Your task to perform on an android device: check android version Image 0: 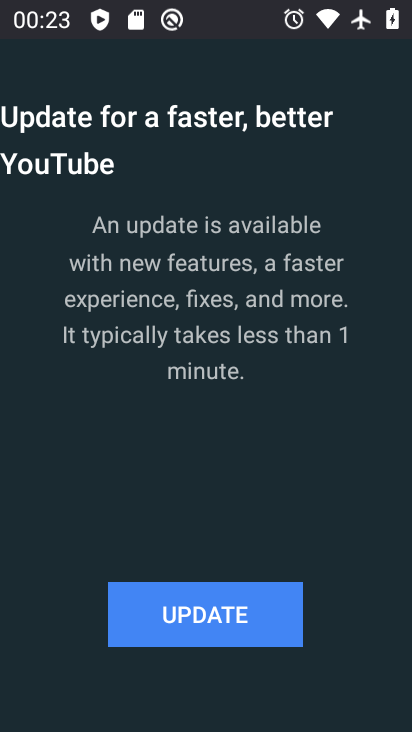
Step 0: press home button
Your task to perform on an android device: check android version Image 1: 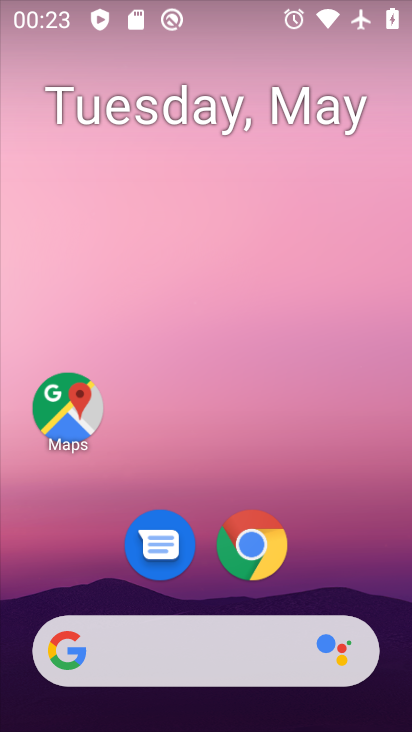
Step 1: drag from (310, 546) to (404, 8)
Your task to perform on an android device: check android version Image 2: 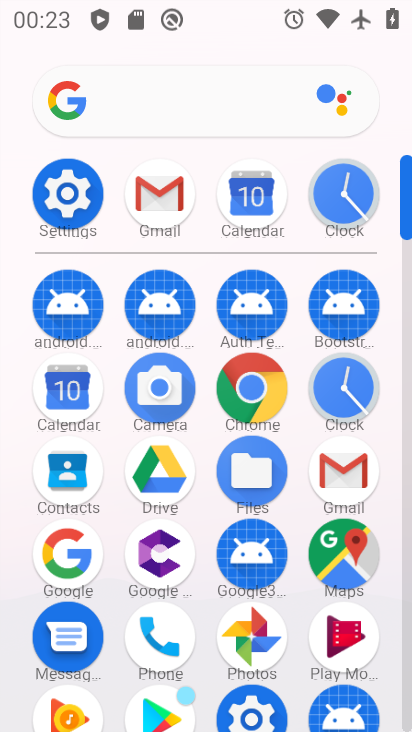
Step 2: click (92, 198)
Your task to perform on an android device: check android version Image 3: 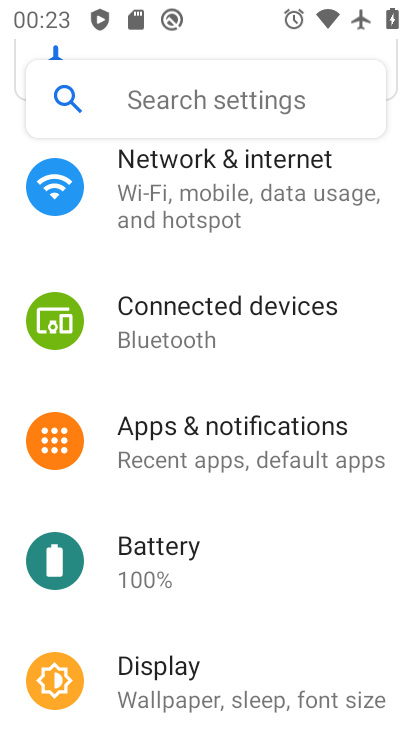
Step 3: drag from (171, 534) to (202, 354)
Your task to perform on an android device: check android version Image 4: 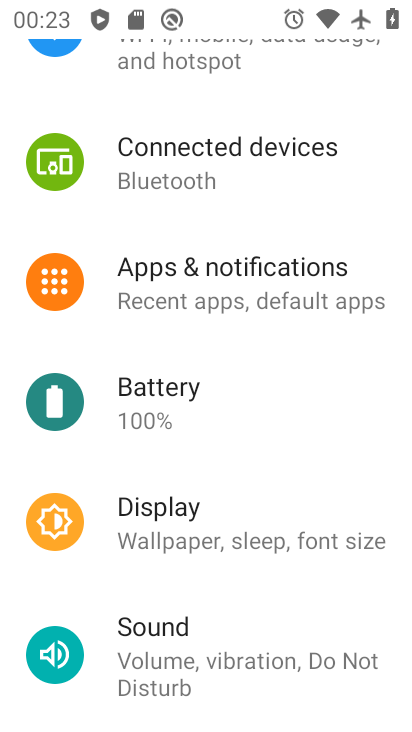
Step 4: drag from (120, 549) to (167, 306)
Your task to perform on an android device: check android version Image 5: 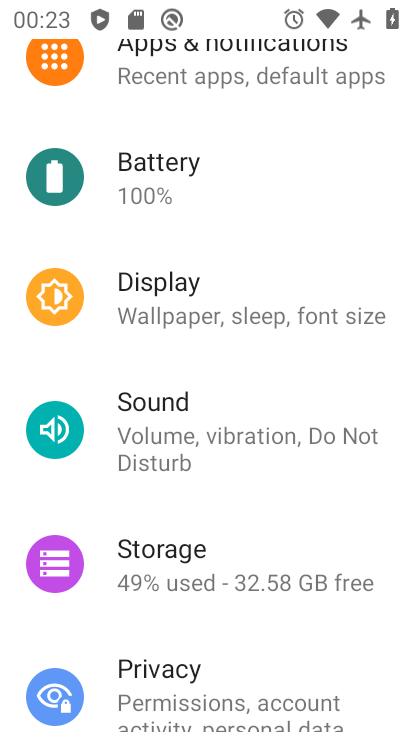
Step 5: drag from (108, 504) to (128, 364)
Your task to perform on an android device: check android version Image 6: 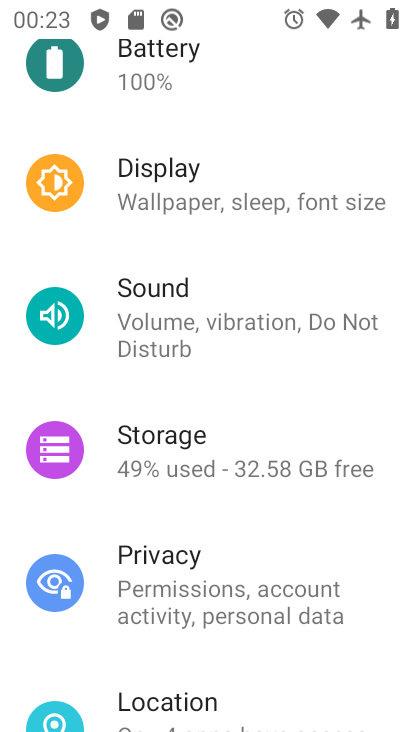
Step 6: drag from (121, 461) to (147, 352)
Your task to perform on an android device: check android version Image 7: 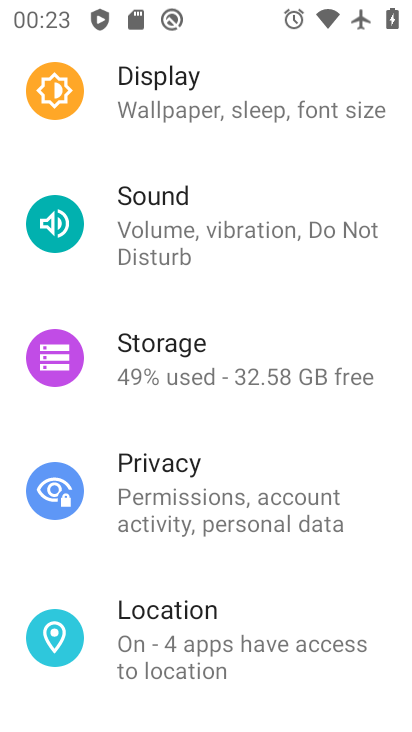
Step 7: drag from (150, 468) to (174, 340)
Your task to perform on an android device: check android version Image 8: 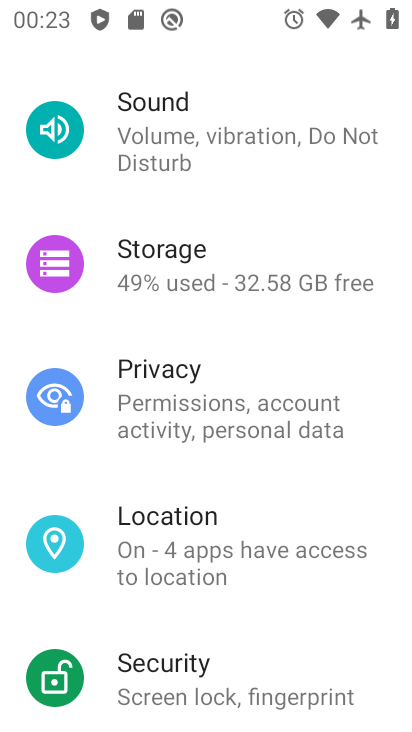
Step 8: drag from (196, 544) to (196, 388)
Your task to perform on an android device: check android version Image 9: 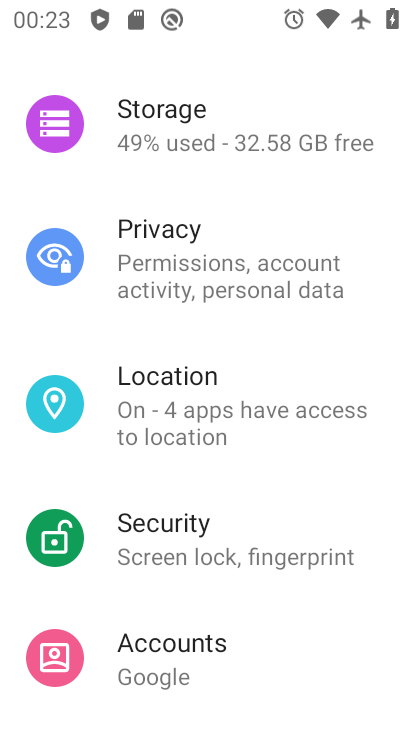
Step 9: drag from (191, 572) to (211, 361)
Your task to perform on an android device: check android version Image 10: 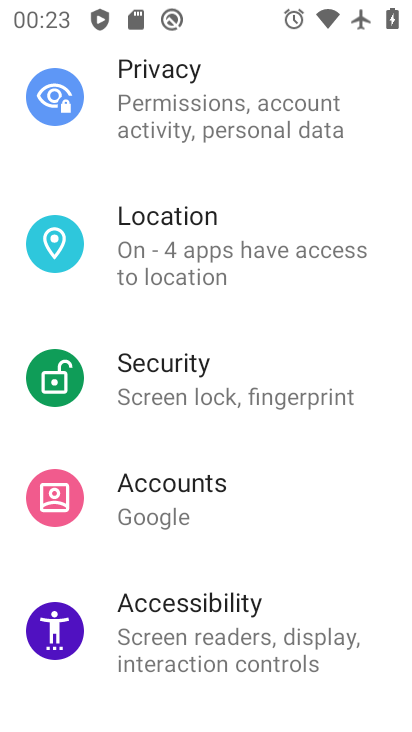
Step 10: drag from (174, 568) to (204, 428)
Your task to perform on an android device: check android version Image 11: 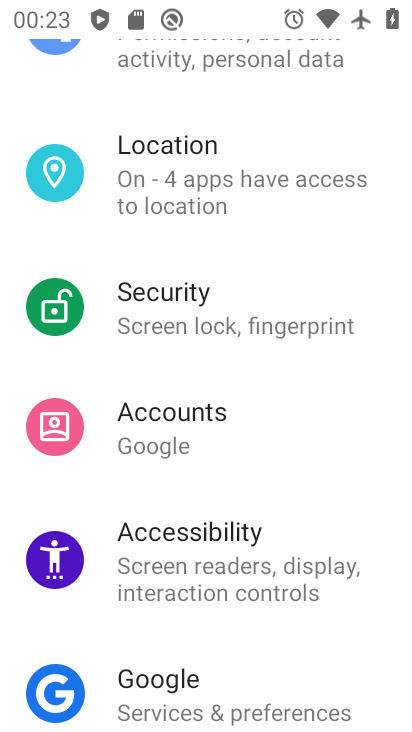
Step 11: drag from (176, 599) to (207, 416)
Your task to perform on an android device: check android version Image 12: 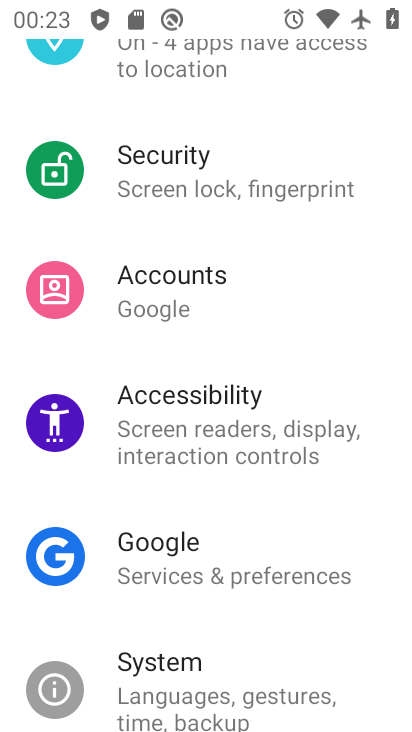
Step 12: drag from (181, 531) to (218, 380)
Your task to perform on an android device: check android version Image 13: 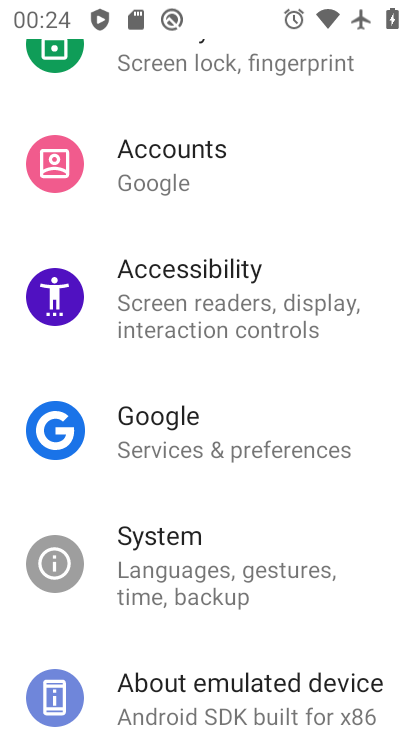
Step 13: click (173, 710)
Your task to perform on an android device: check android version Image 14: 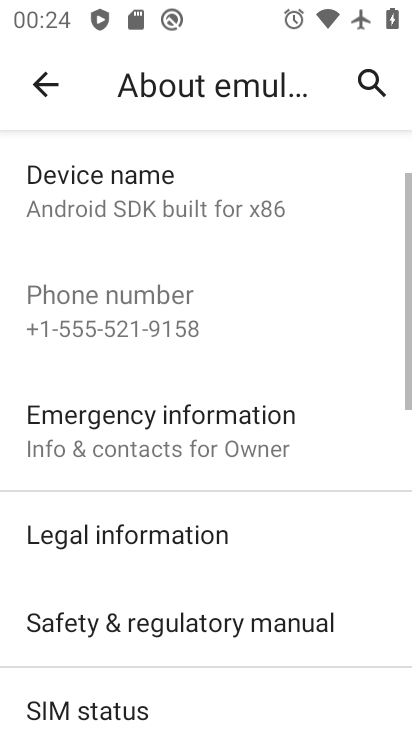
Step 14: drag from (56, 687) to (138, 488)
Your task to perform on an android device: check android version Image 15: 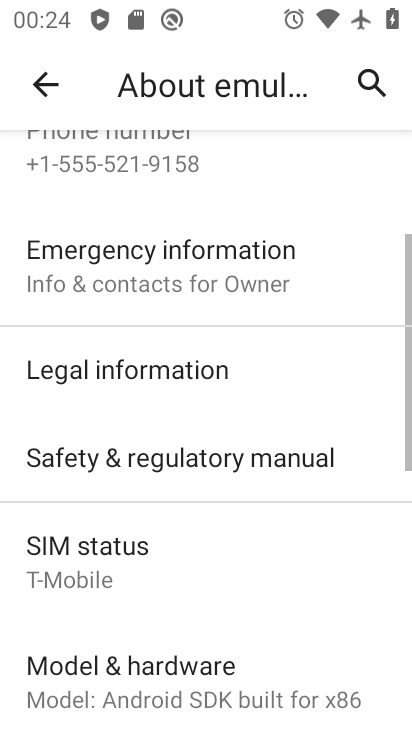
Step 15: drag from (93, 650) to (192, 417)
Your task to perform on an android device: check android version Image 16: 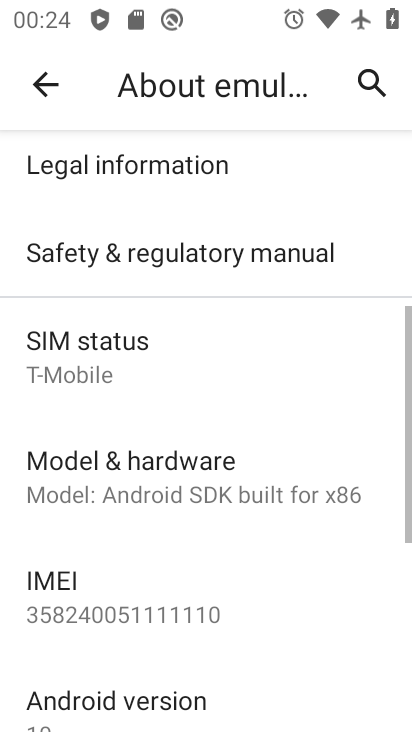
Step 16: drag from (209, 526) to (236, 404)
Your task to perform on an android device: check android version Image 17: 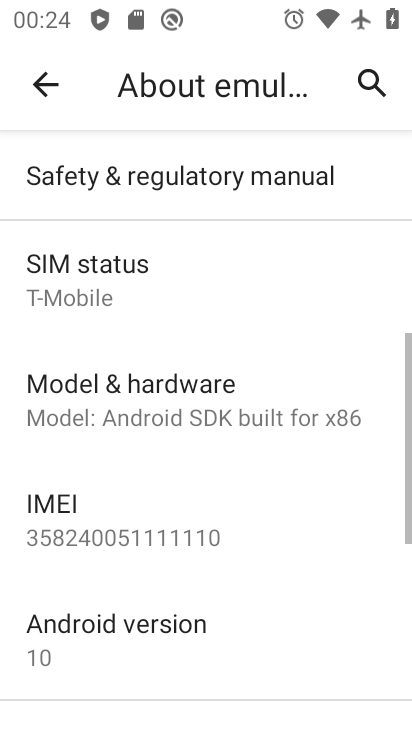
Step 17: click (212, 641)
Your task to perform on an android device: check android version Image 18: 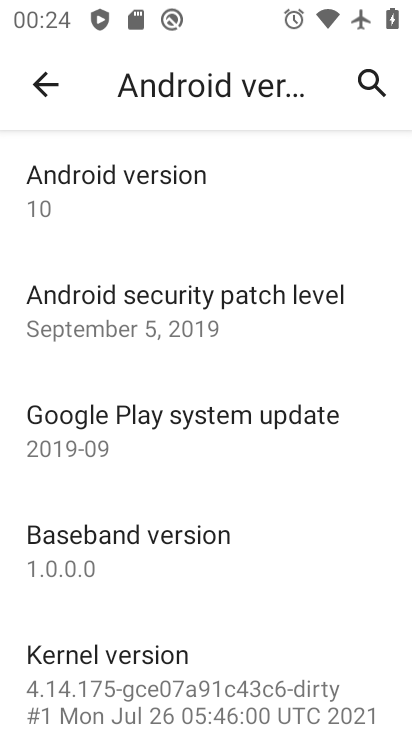
Step 18: click (58, 206)
Your task to perform on an android device: check android version Image 19: 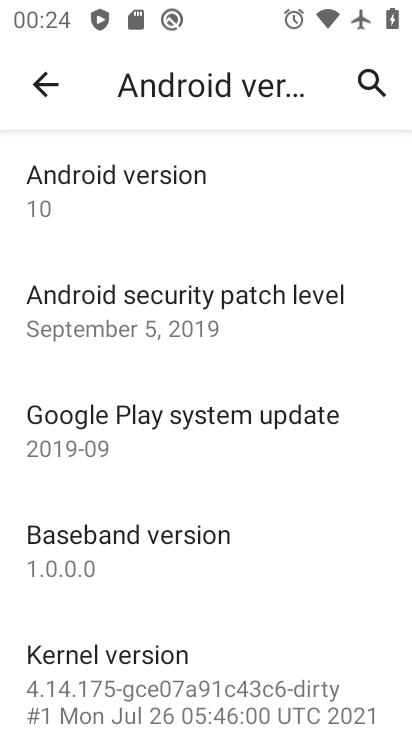
Step 19: task complete